Your task to perform on an android device: Open display settings Image 0: 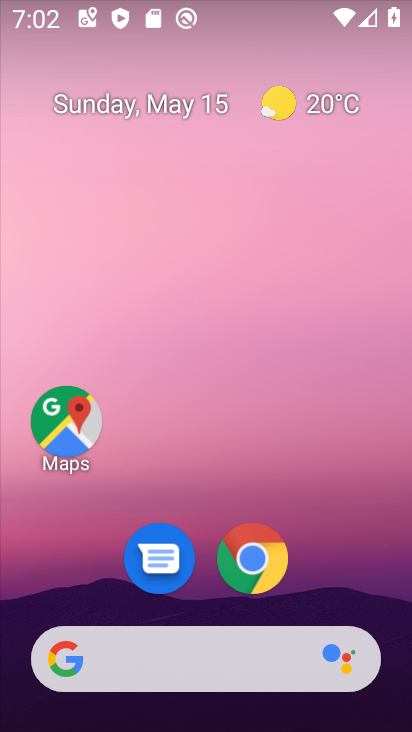
Step 0: drag from (312, 552) to (129, 45)
Your task to perform on an android device: Open display settings Image 1: 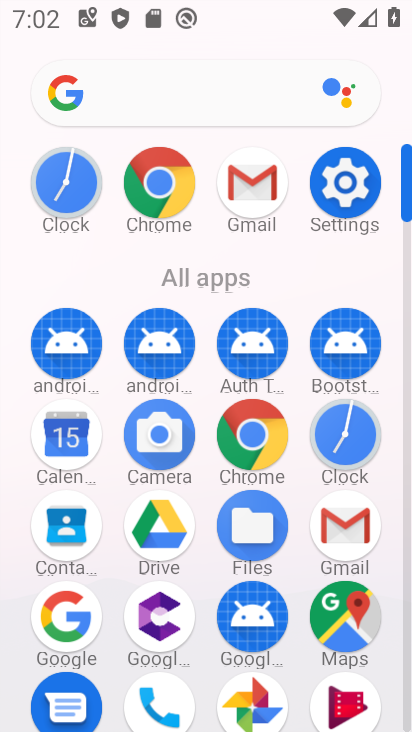
Step 1: click (348, 184)
Your task to perform on an android device: Open display settings Image 2: 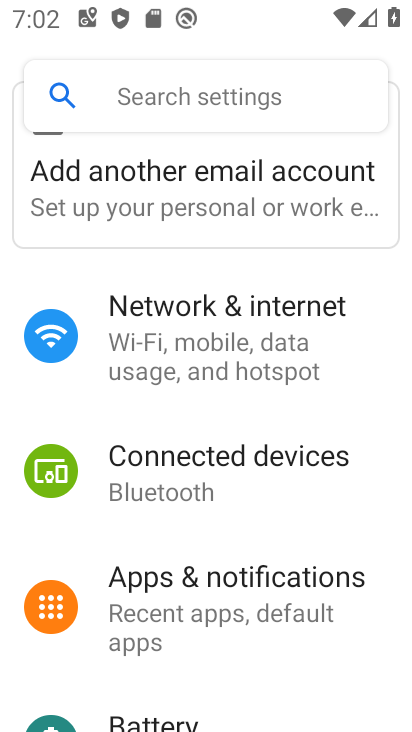
Step 2: drag from (250, 518) to (198, 246)
Your task to perform on an android device: Open display settings Image 3: 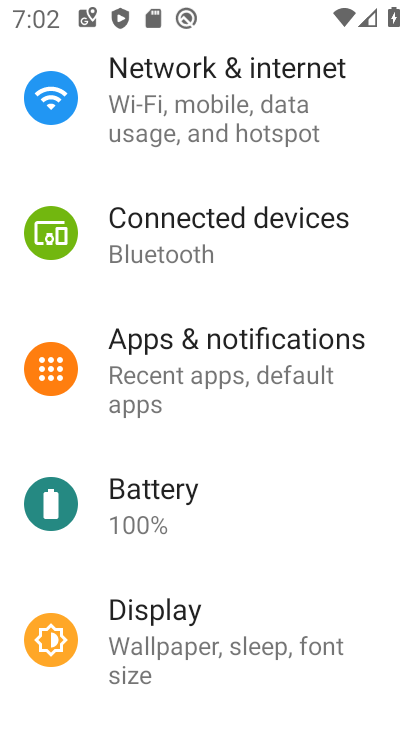
Step 3: click (138, 610)
Your task to perform on an android device: Open display settings Image 4: 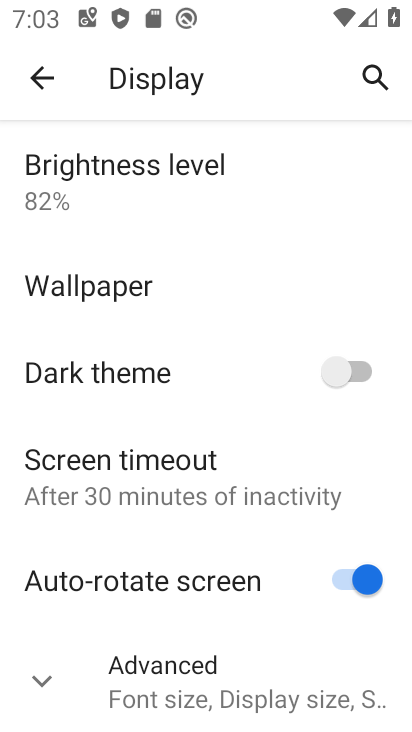
Step 4: task complete